Your task to perform on an android device: Go to settings Image 0: 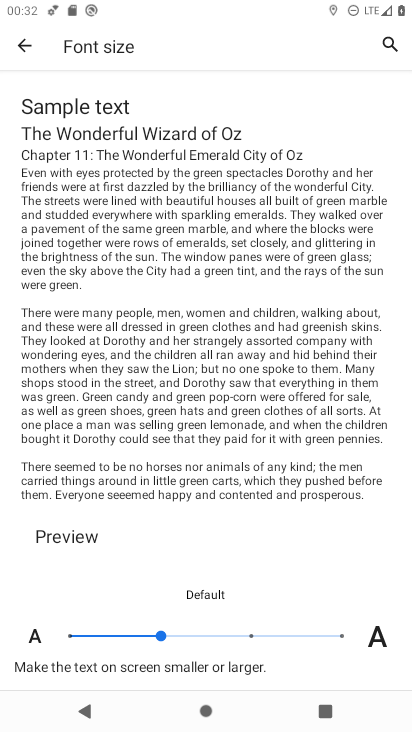
Step 0: press home button
Your task to perform on an android device: Go to settings Image 1: 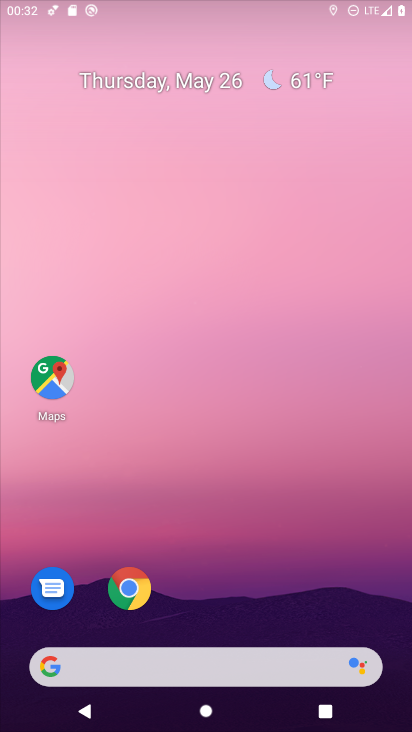
Step 1: drag from (260, 531) to (116, 200)
Your task to perform on an android device: Go to settings Image 2: 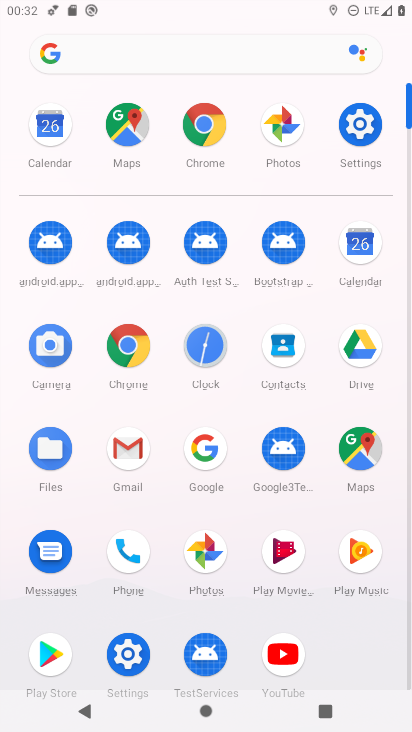
Step 2: click (355, 113)
Your task to perform on an android device: Go to settings Image 3: 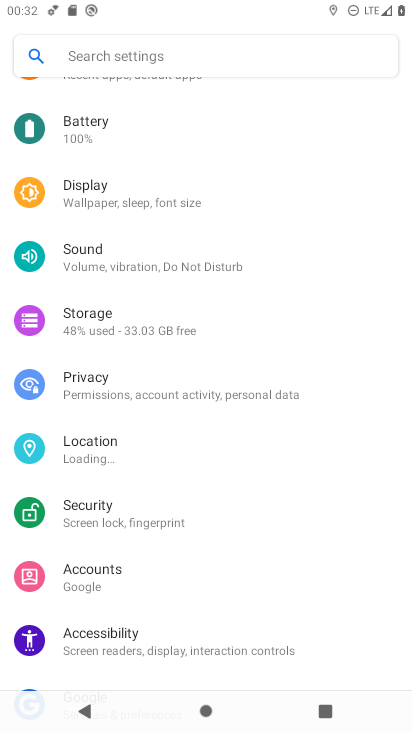
Step 3: task complete